Your task to perform on an android device: Open calendar and show me the fourth week of next month Image 0: 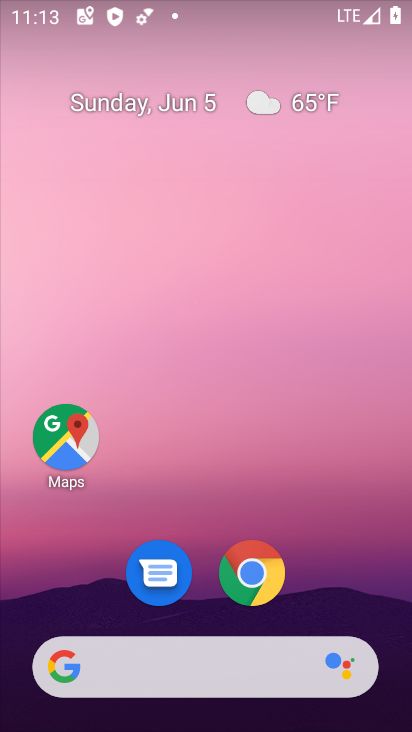
Step 0: drag from (211, 495) to (263, 78)
Your task to perform on an android device: Open calendar and show me the fourth week of next month Image 1: 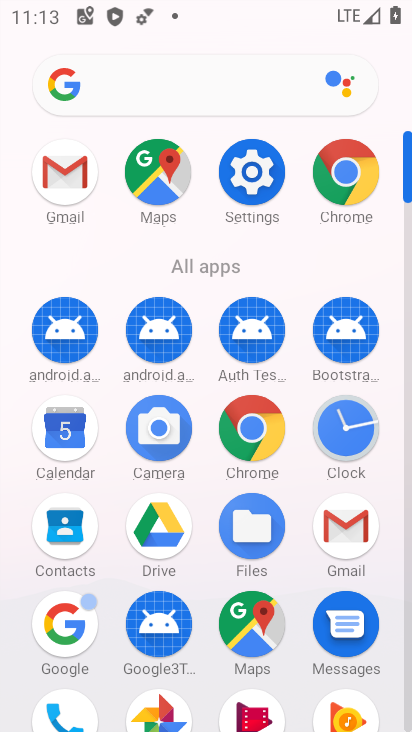
Step 1: click (75, 452)
Your task to perform on an android device: Open calendar and show me the fourth week of next month Image 2: 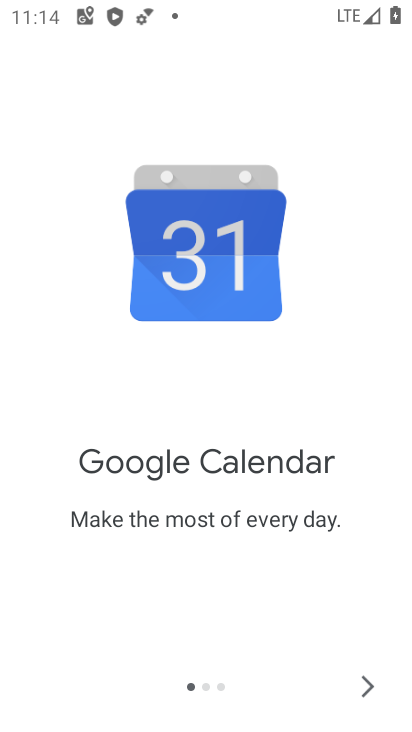
Step 2: click (363, 685)
Your task to perform on an android device: Open calendar and show me the fourth week of next month Image 3: 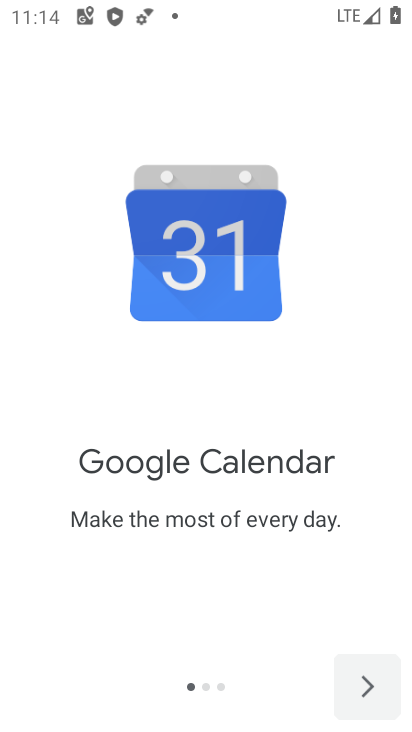
Step 3: click (363, 685)
Your task to perform on an android device: Open calendar and show me the fourth week of next month Image 4: 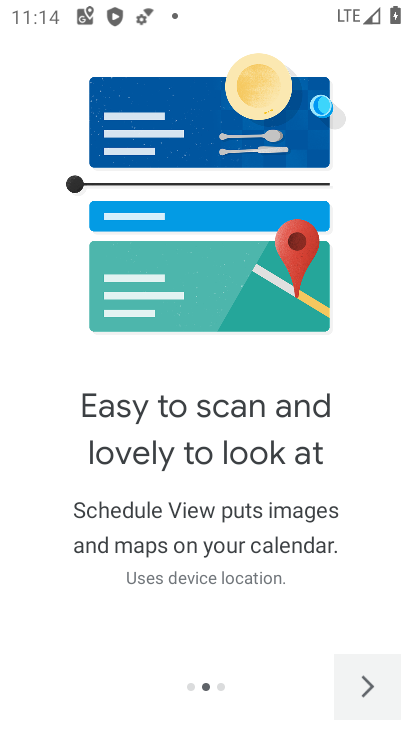
Step 4: click (363, 685)
Your task to perform on an android device: Open calendar and show me the fourth week of next month Image 5: 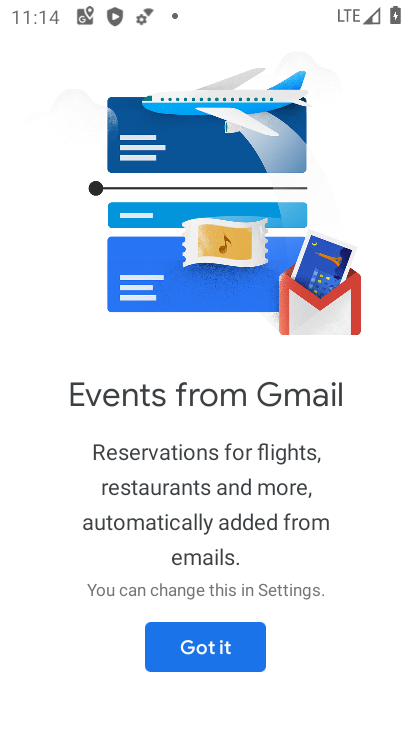
Step 5: click (172, 635)
Your task to perform on an android device: Open calendar and show me the fourth week of next month Image 6: 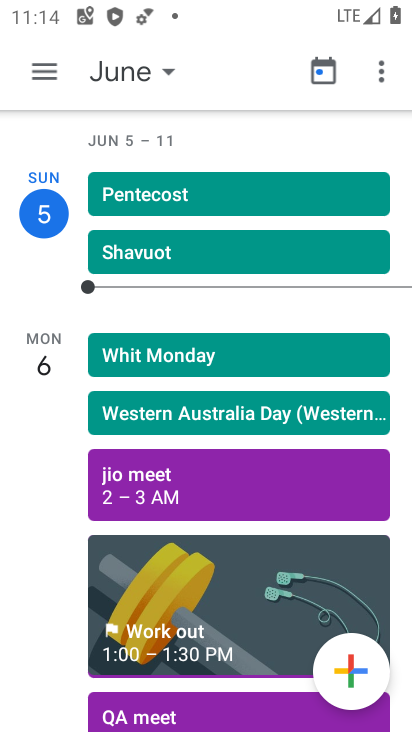
Step 6: click (163, 60)
Your task to perform on an android device: Open calendar and show me the fourth week of next month Image 7: 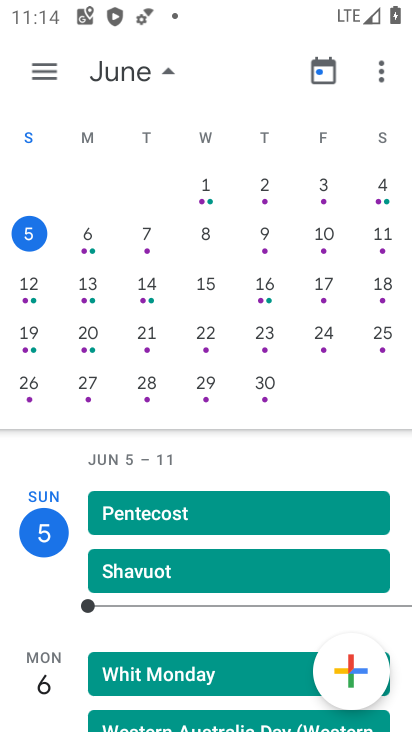
Step 7: drag from (307, 294) to (0, 311)
Your task to perform on an android device: Open calendar and show me the fourth week of next month Image 8: 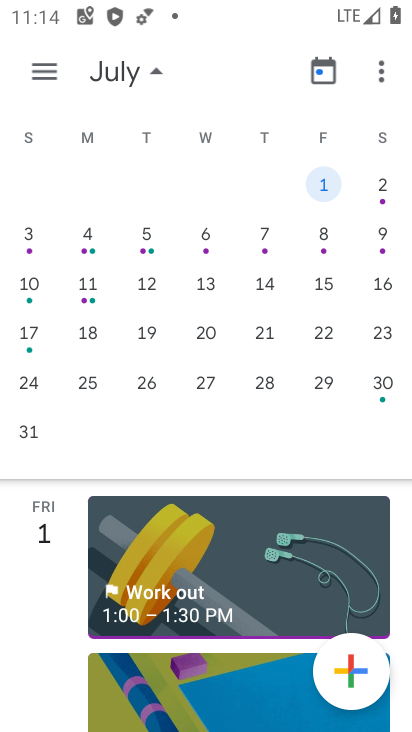
Step 8: click (22, 331)
Your task to perform on an android device: Open calendar and show me the fourth week of next month Image 9: 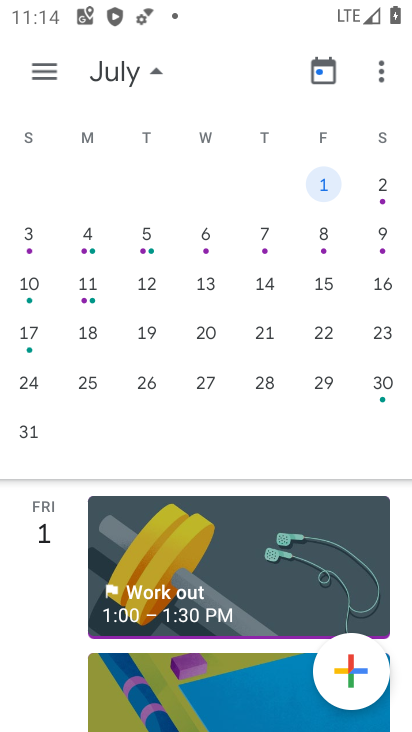
Step 9: click (25, 334)
Your task to perform on an android device: Open calendar and show me the fourth week of next month Image 10: 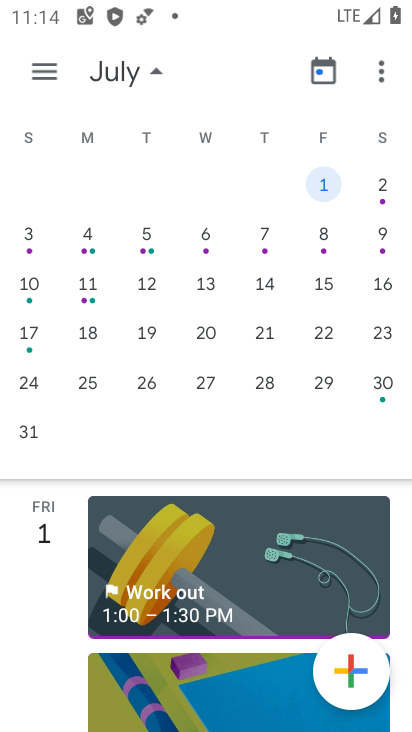
Step 10: click (34, 341)
Your task to perform on an android device: Open calendar and show me the fourth week of next month Image 11: 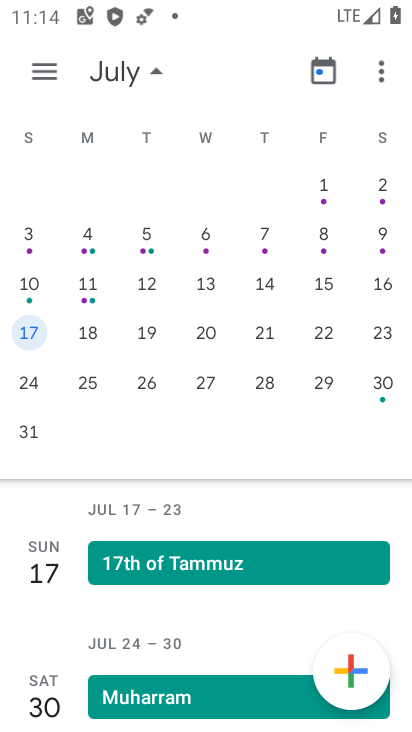
Step 11: click (167, 63)
Your task to perform on an android device: Open calendar and show me the fourth week of next month Image 12: 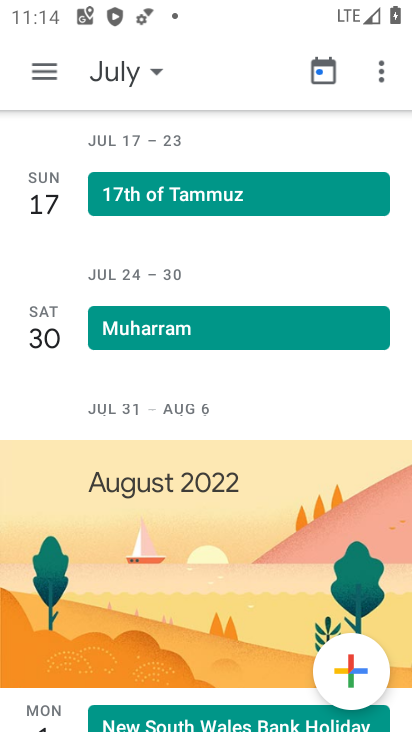
Step 12: task complete